Your task to perform on an android device: set an alarm Image 0: 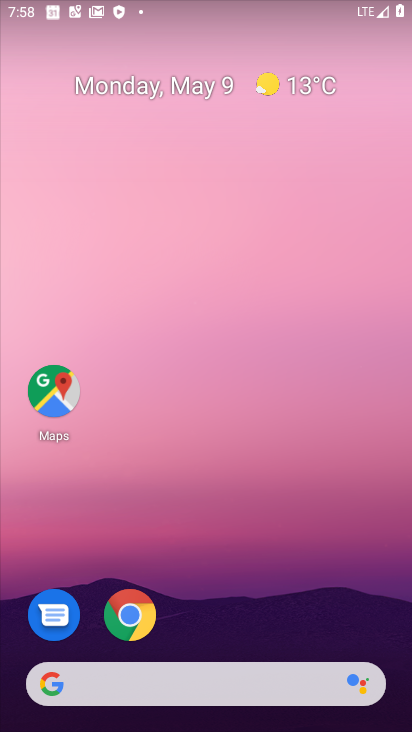
Step 0: drag from (204, 647) to (411, 242)
Your task to perform on an android device: set an alarm Image 1: 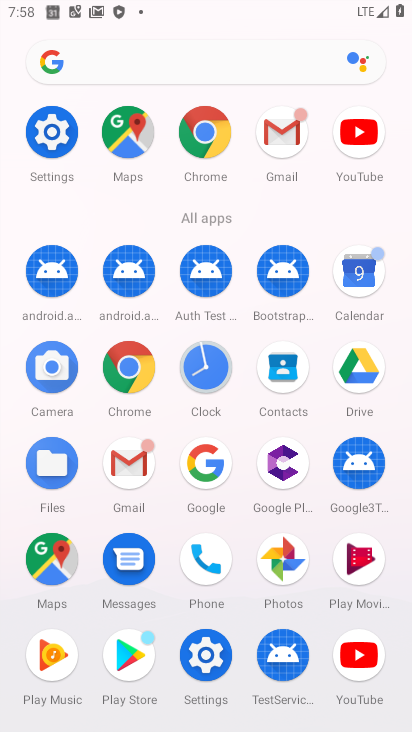
Step 1: click (196, 352)
Your task to perform on an android device: set an alarm Image 2: 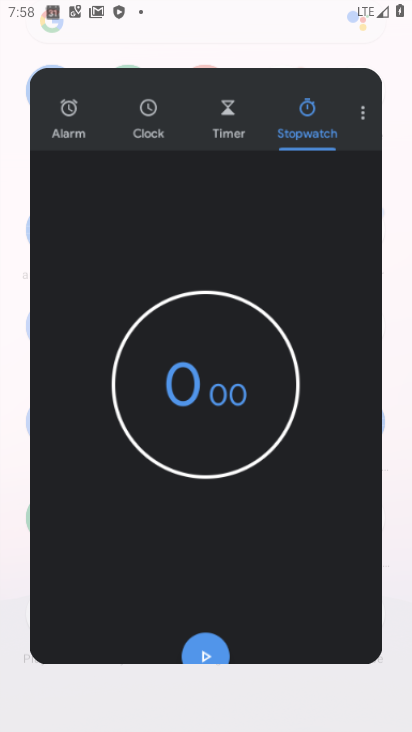
Step 2: click (205, 356)
Your task to perform on an android device: set an alarm Image 3: 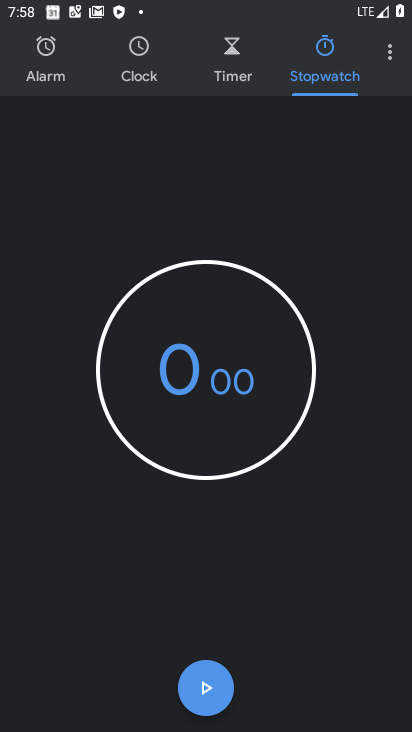
Step 3: click (68, 46)
Your task to perform on an android device: set an alarm Image 4: 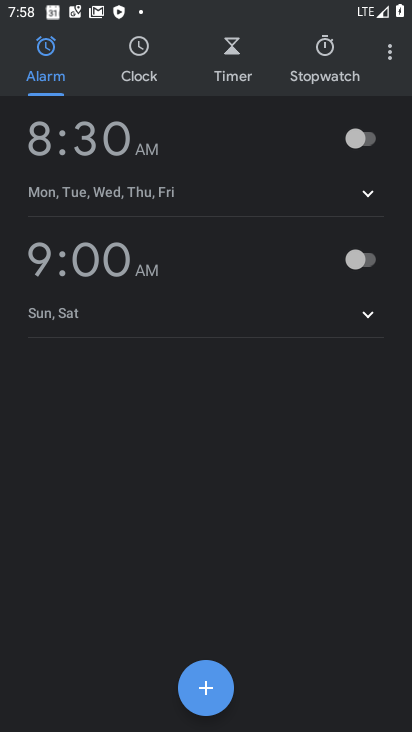
Step 4: click (368, 150)
Your task to perform on an android device: set an alarm Image 5: 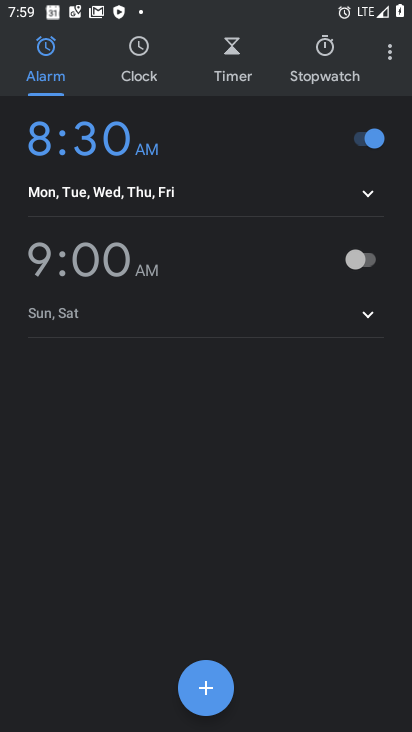
Step 5: task complete